Your task to perform on an android device: turn off location history Image 0: 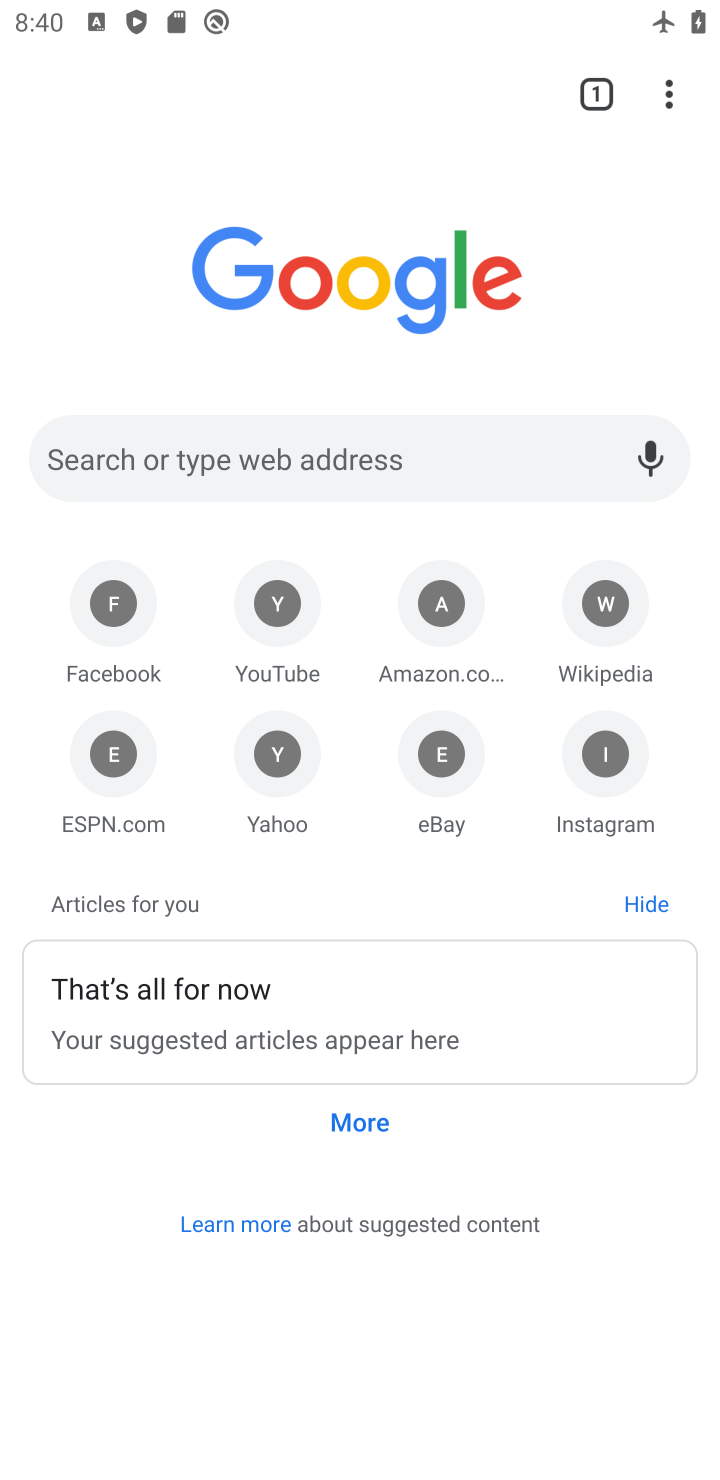
Step 0: press home button
Your task to perform on an android device: turn off location history Image 1: 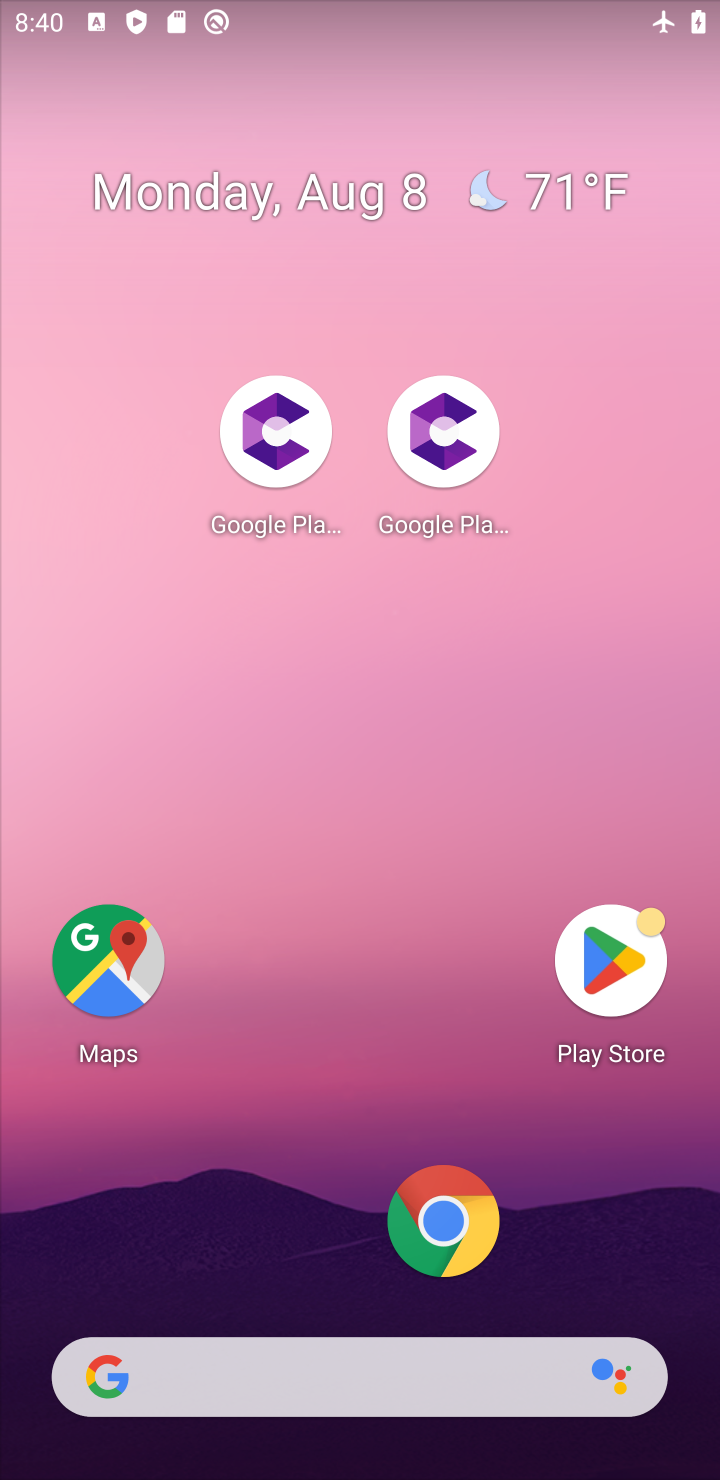
Step 1: drag from (322, 103) to (331, 30)
Your task to perform on an android device: turn off location history Image 2: 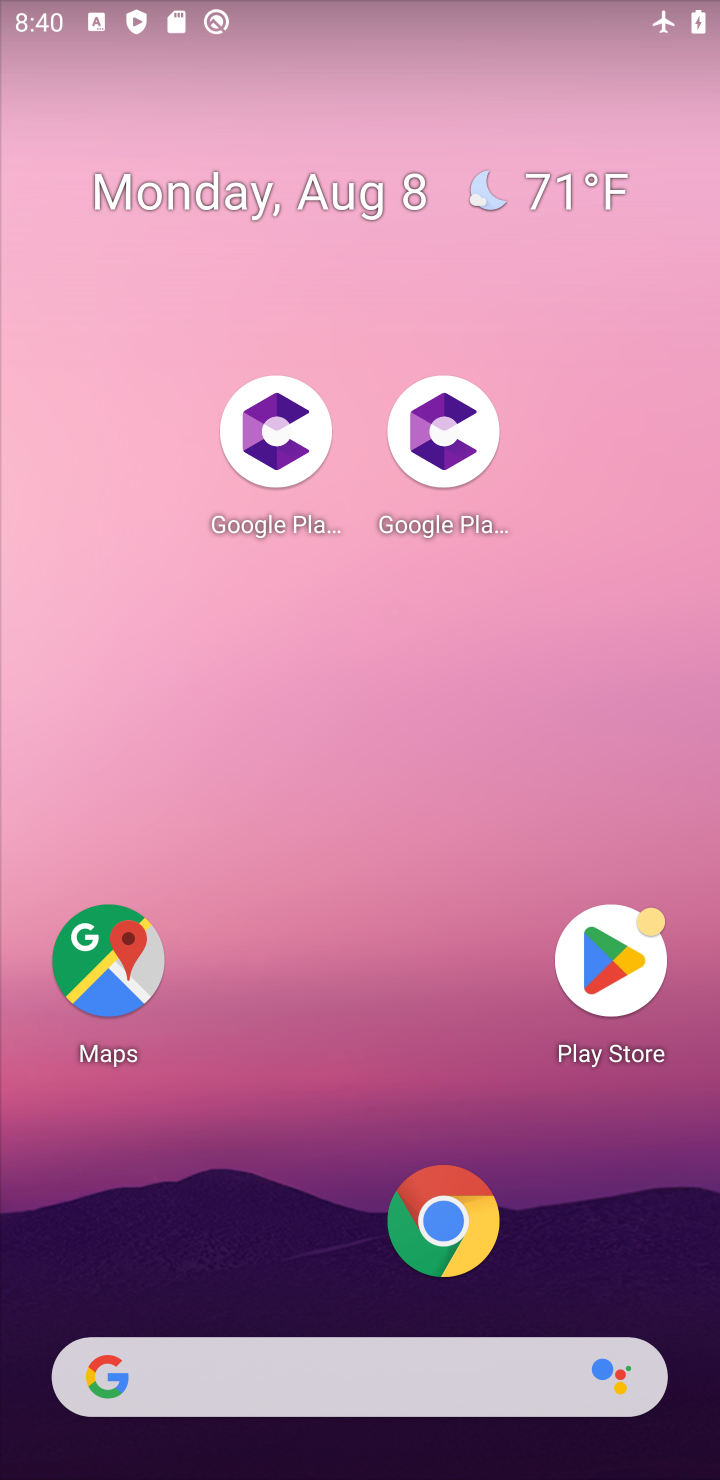
Step 2: drag from (481, 1047) to (419, 128)
Your task to perform on an android device: turn off location history Image 3: 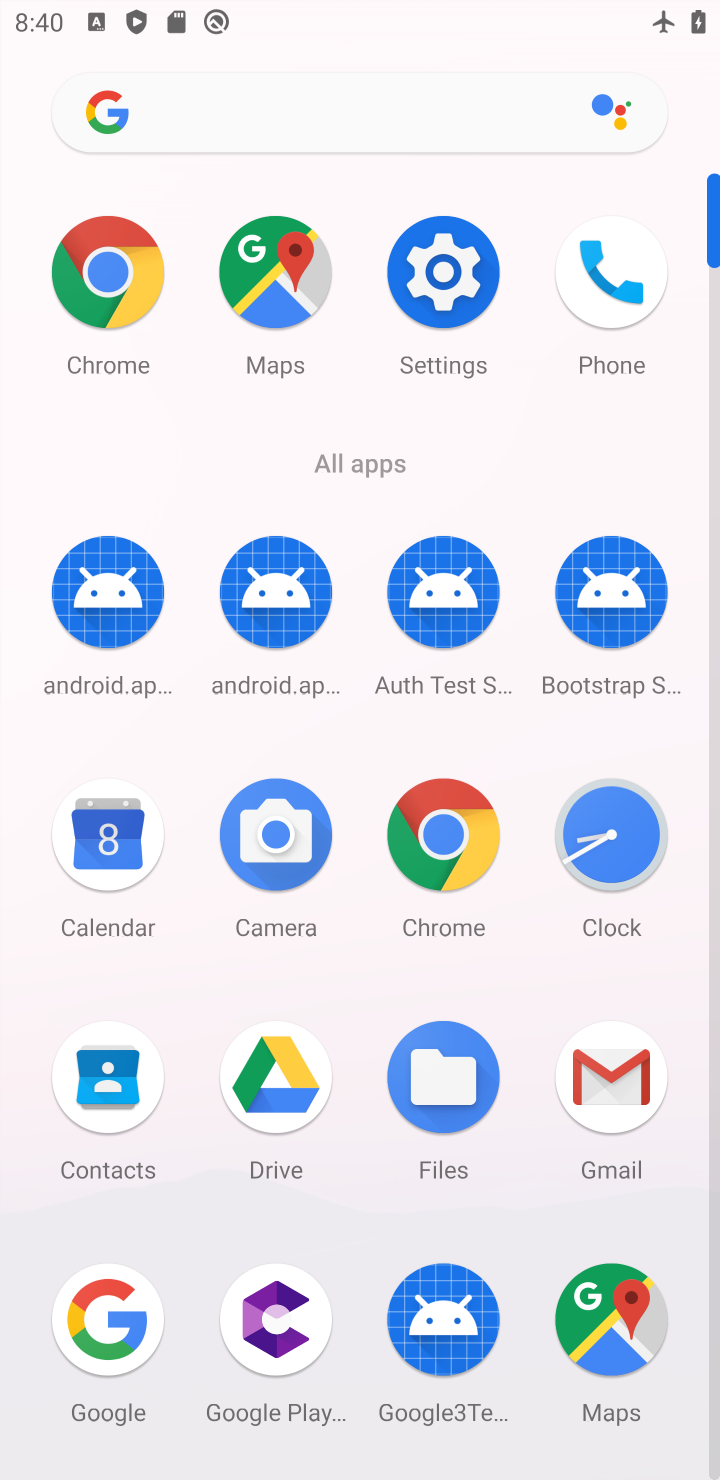
Step 3: click (471, 290)
Your task to perform on an android device: turn off location history Image 4: 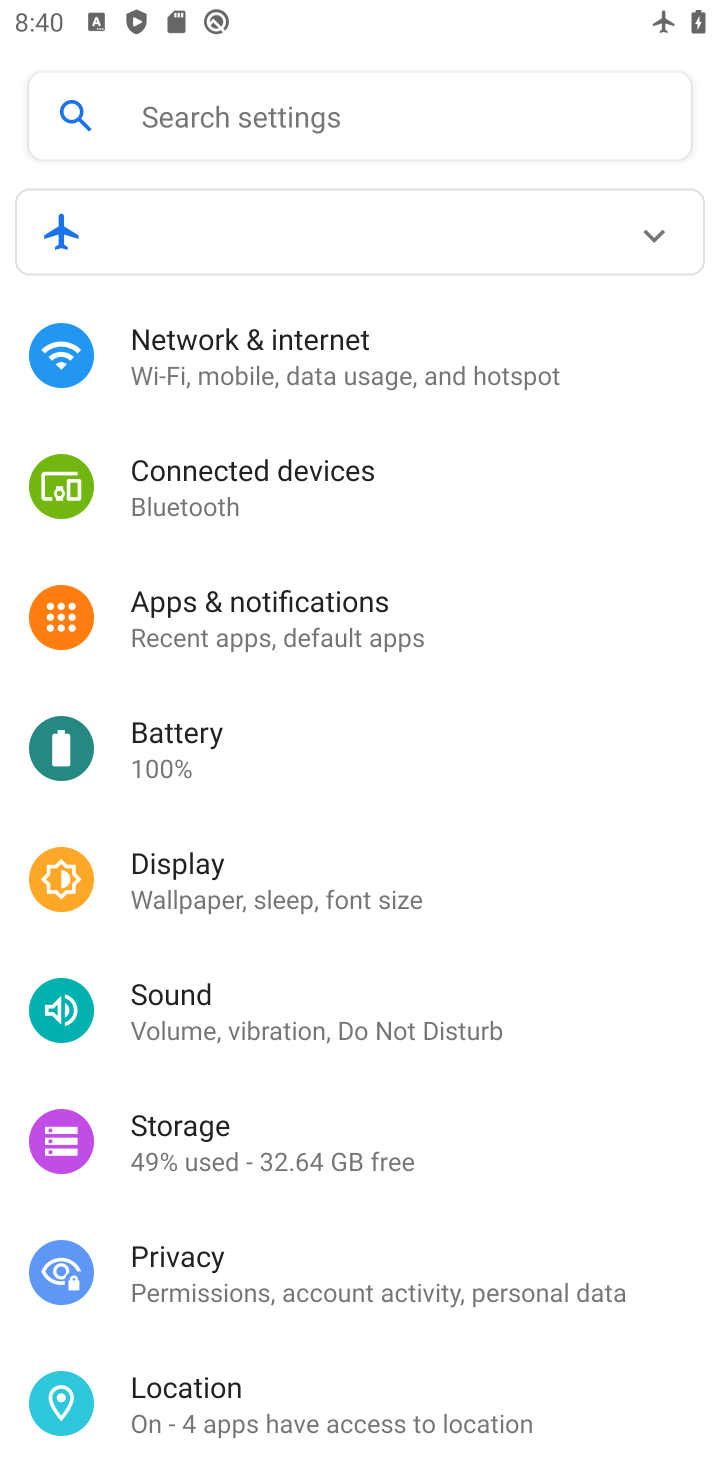
Step 4: click (179, 1358)
Your task to perform on an android device: turn off location history Image 5: 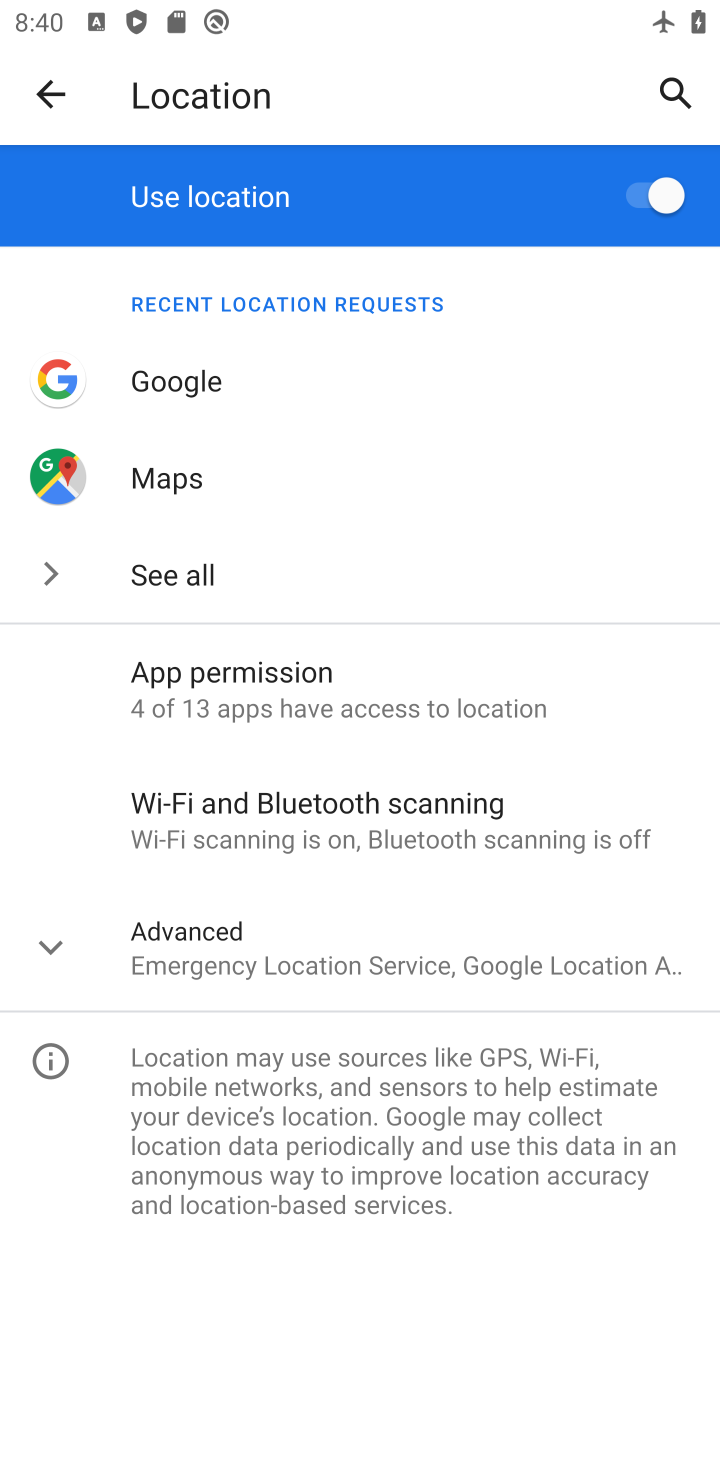
Step 5: click (360, 943)
Your task to perform on an android device: turn off location history Image 6: 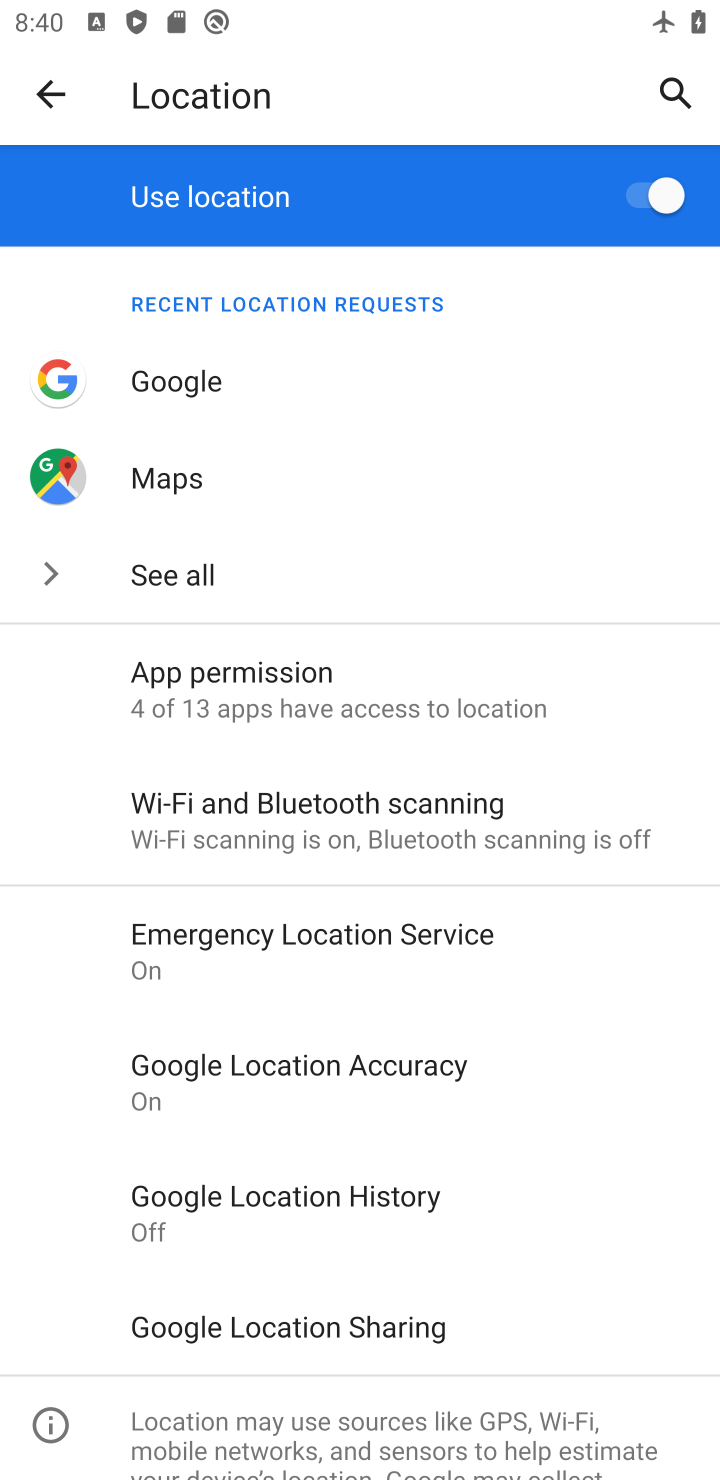
Step 6: click (322, 1203)
Your task to perform on an android device: turn off location history Image 7: 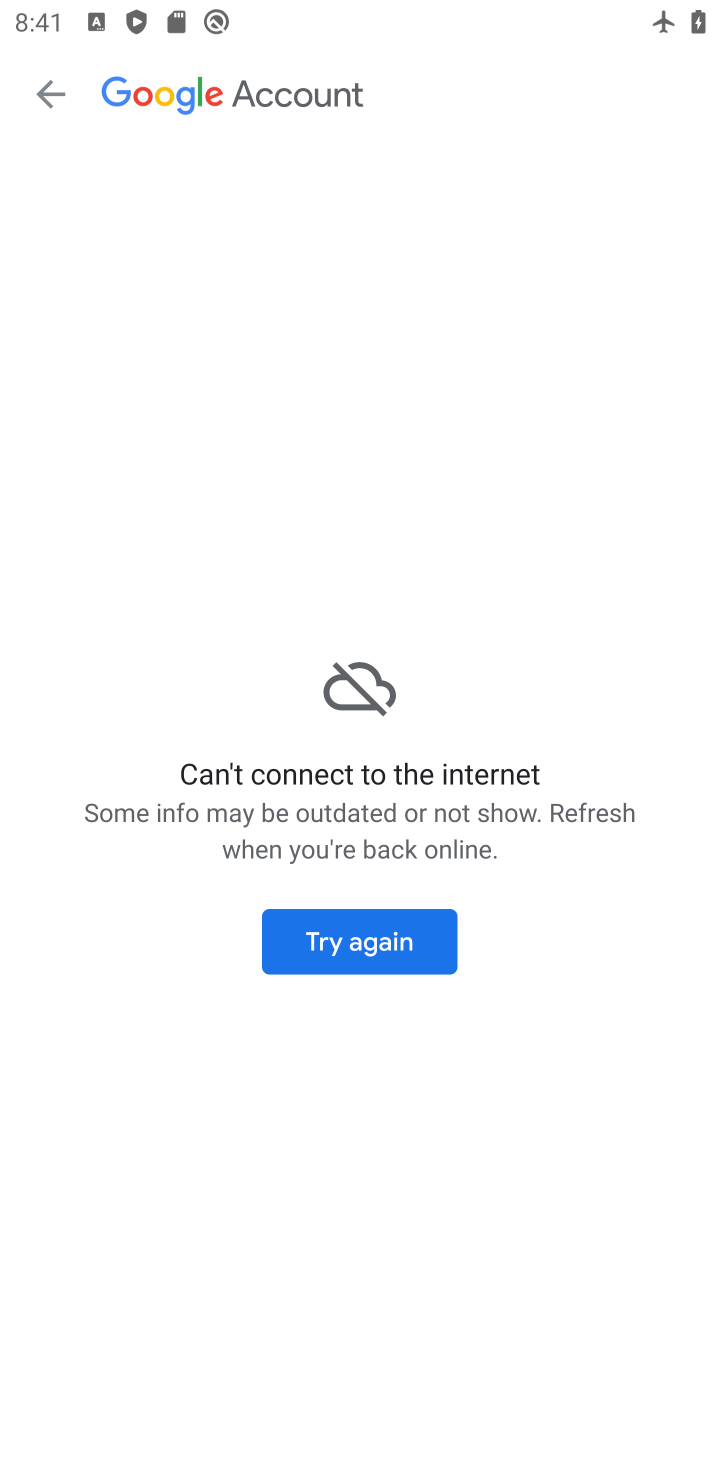
Step 7: drag from (404, 254) to (402, 1162)
Your task to perform on an android device: turn off location history Image 8: 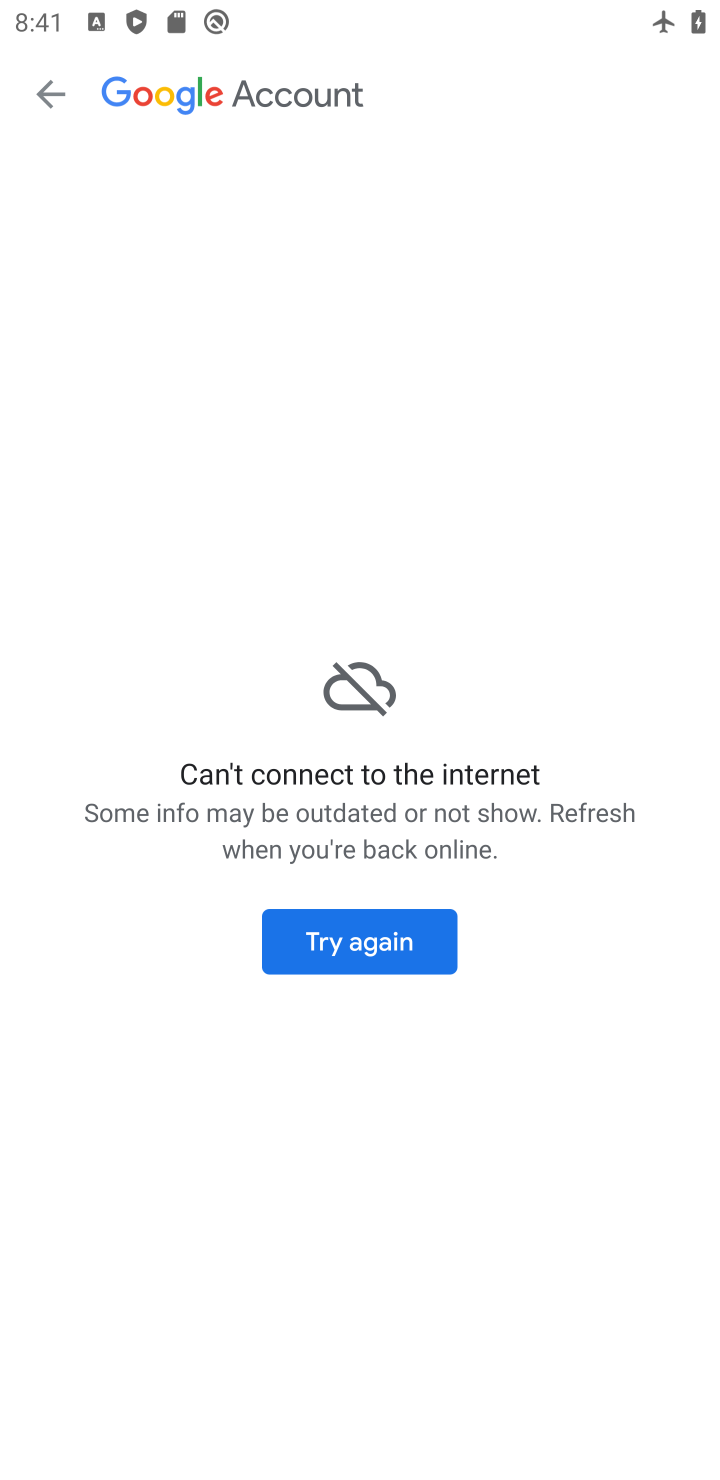
Step 8: drag from (382, 12) to (449, 1094)
Your task to perform on an android device: turn off location history Image 9: 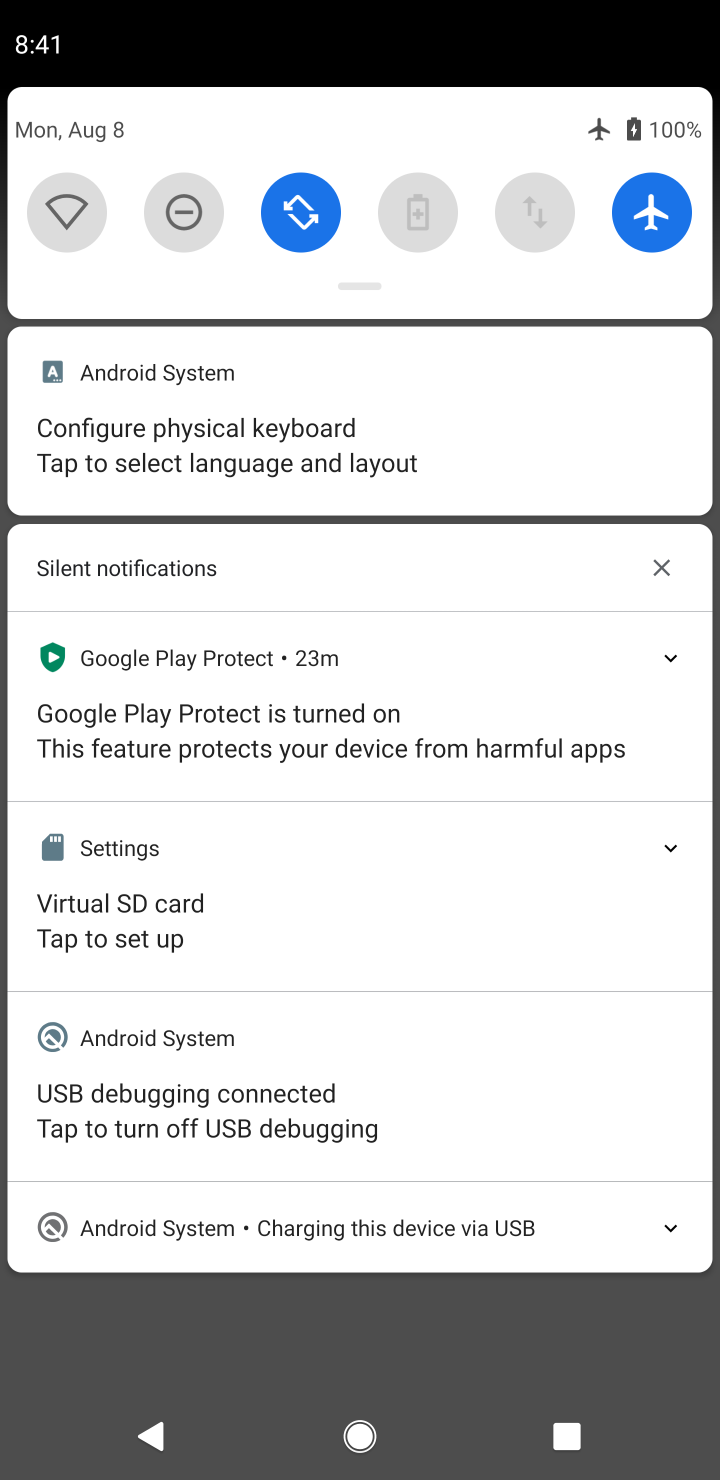
Step 9: click (664, 198)
Your task to perform on an android device: turn off location history Image 10: 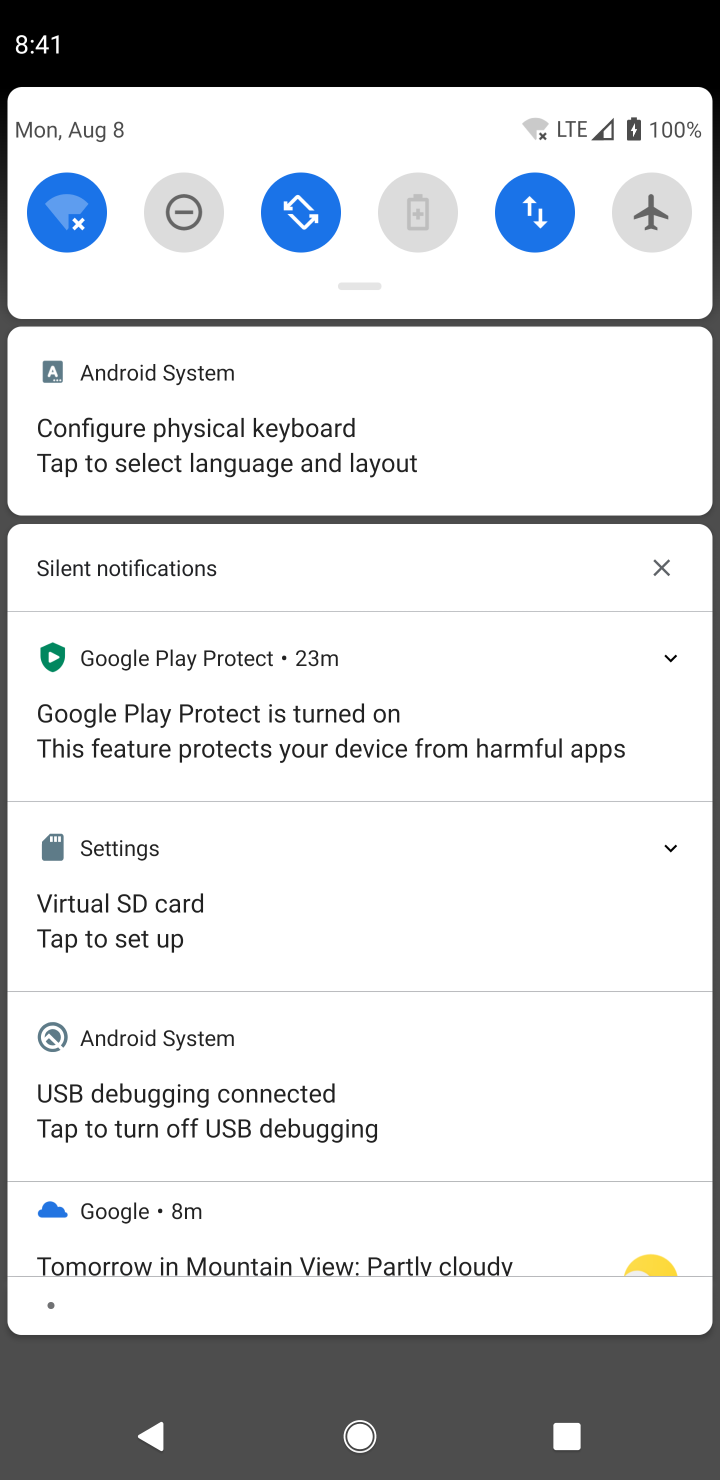
Step 10: task complete